Your task to perform on an android device: see sites visited before in the chrome app Image 0: 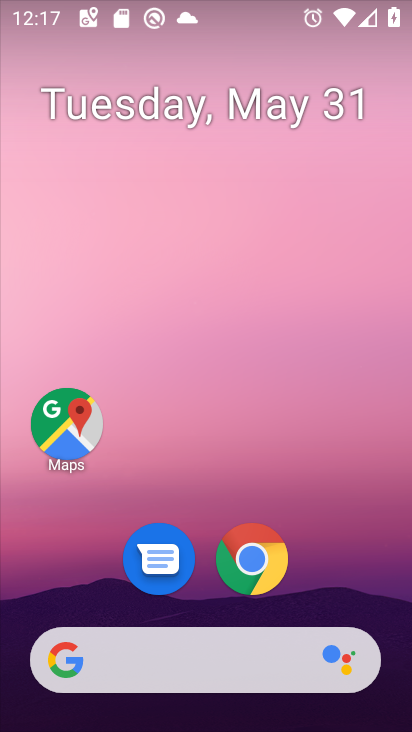
Step 0: click (276, 573)
Your task to perform on an android device: see sites visited before in the chrome app Image 1: 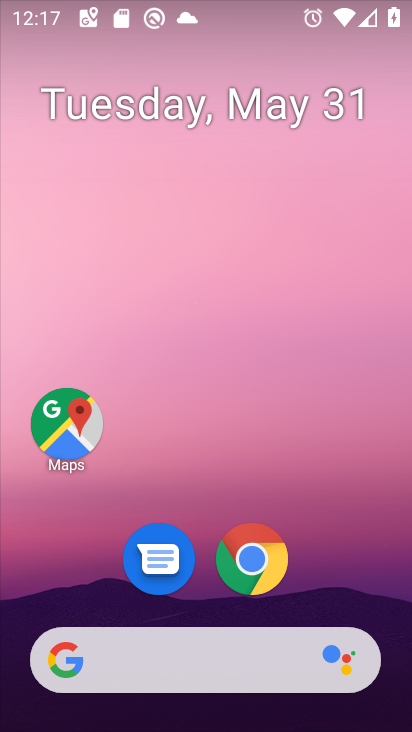
Step 1: click (262, 566)
Your task to perform on an android device: see sites visited before in the chrome app Image 2: 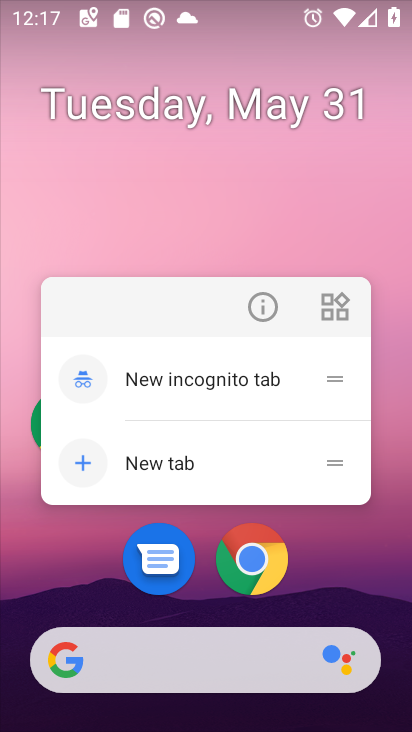
Step 2: click (262, 566)
Your task to perform on an android device: see sites visited before in the chrome app Image 3: 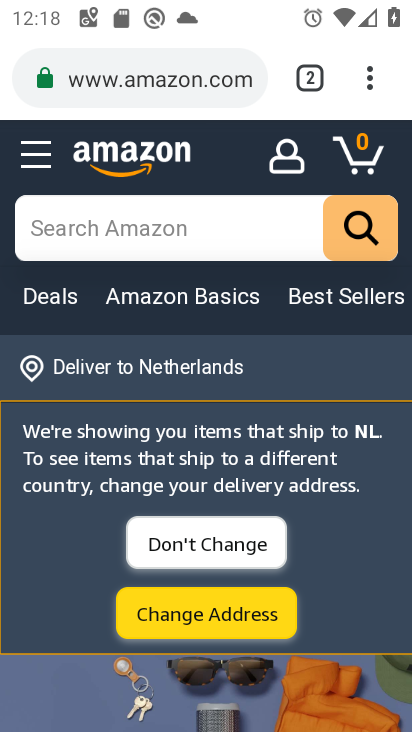
Step 3: click (368, 89)
Your task to perform on an android device: see sites visited before in the chrome app Image 4: 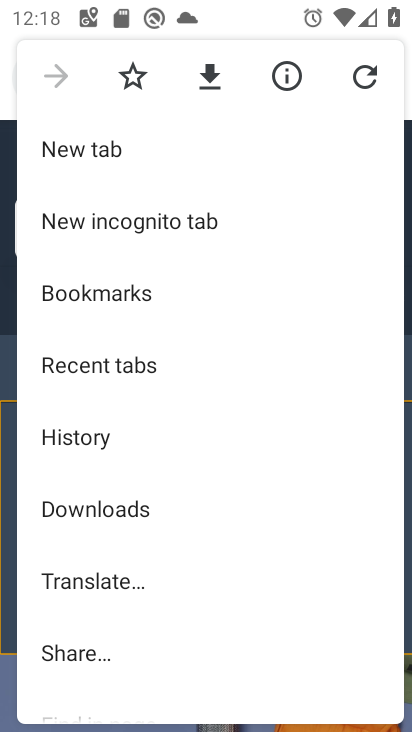
Step 4: click (149, 433)
Your task to perform on an android device: see sites visited before in the chrome app Image 5: 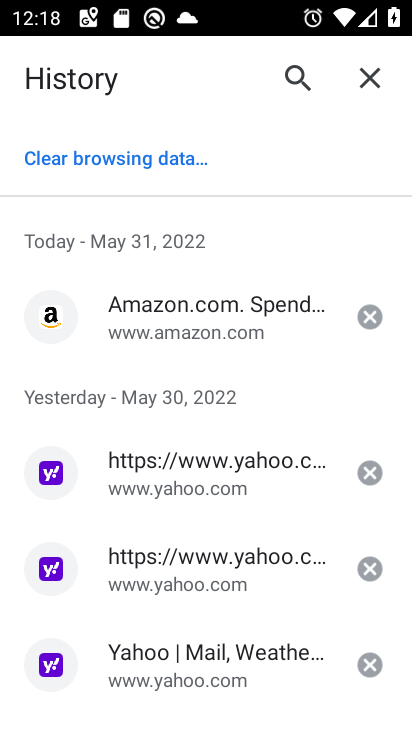
Step 5: task complete